Your task to perform on an android device: check out phone information Image 0: 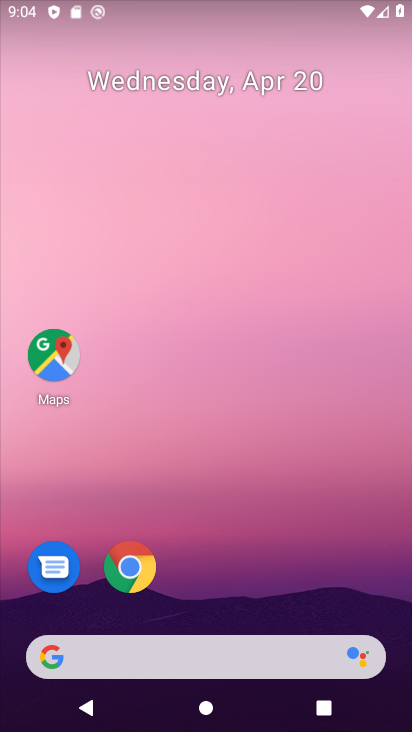
Step 0: drag from (355, 586) to (378, 140)
Your task to perform on an android device: check out phone information Image 1: 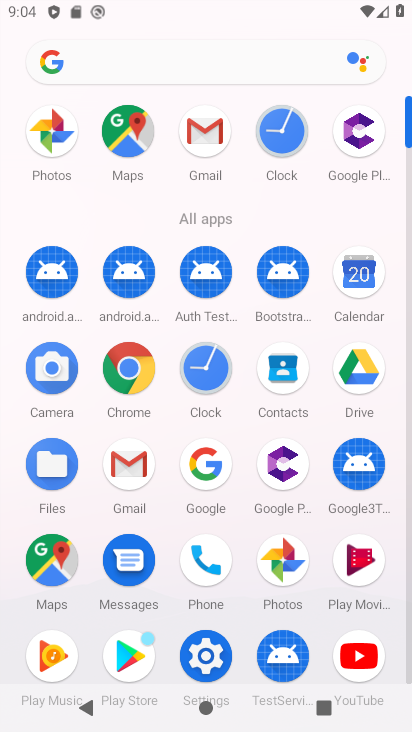
Step 1: click (210, 560)
Your task to perform on an android device: check out phone information Image 2: 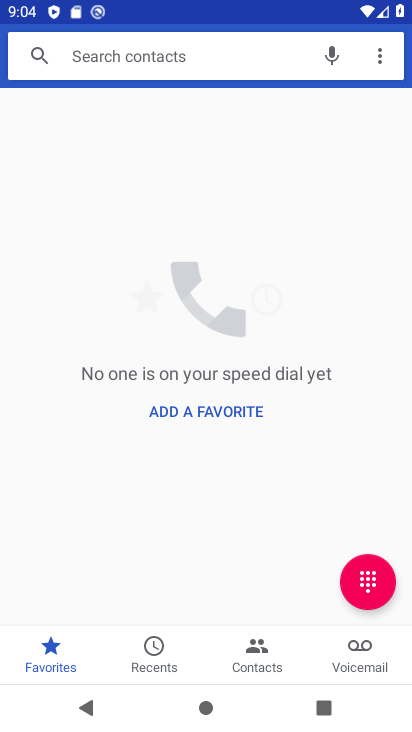
Step 2: click (155, 658)
Your task to perform on an android device: check out phone information Image 3: 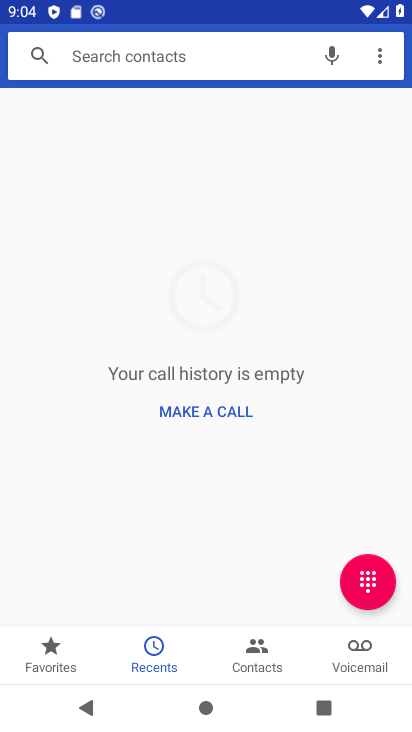
Step 3: task complete